Your task to perform on an android device: Go to internet settings Image 0: 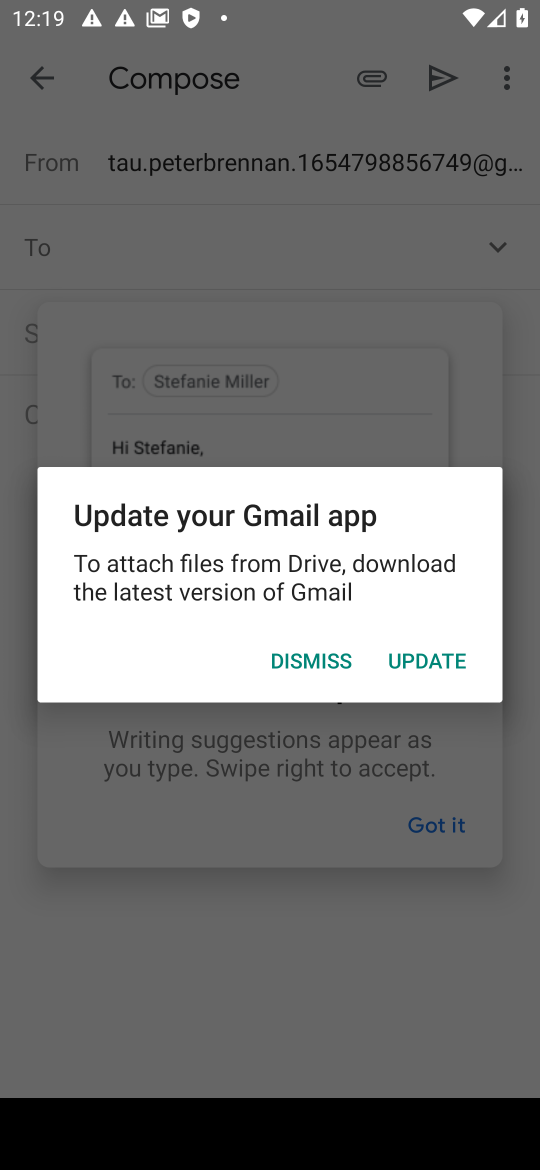
Step 0: press home button
Your task to perform on an android device: Go to internet settings Image 1: 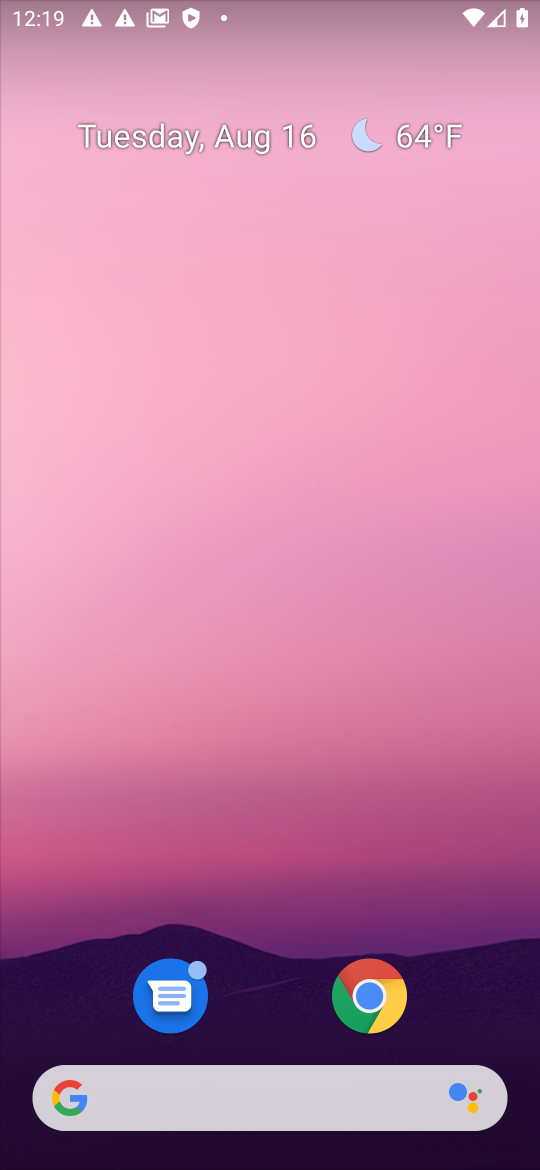
Step 1: drag from (16, 1101) to (389, 422)
Your task to perform on an android device: Go to internet settings Image 2: 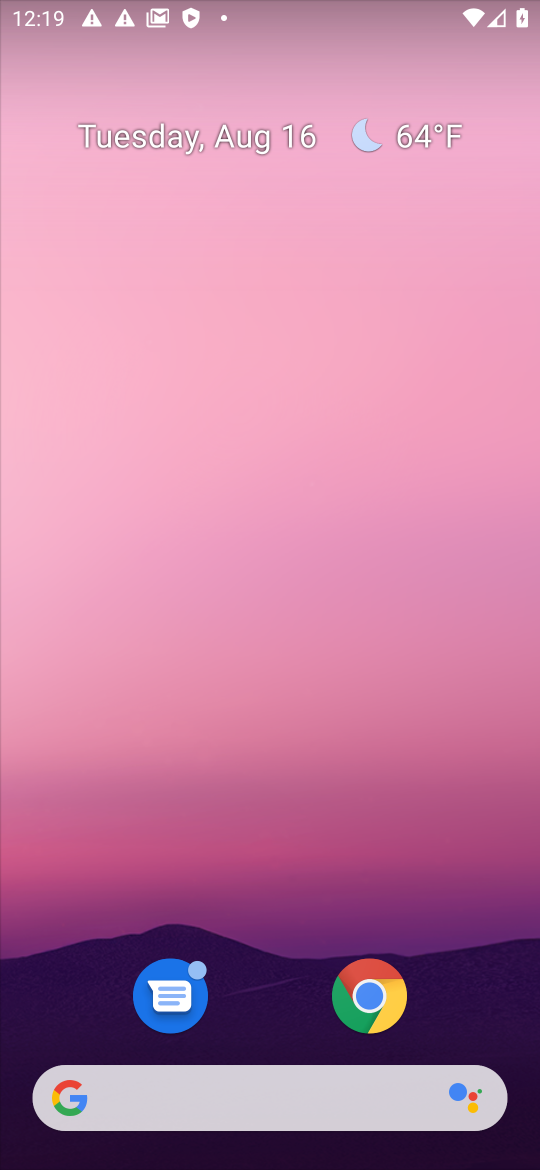
Step 2: drag from (40, 1141) to (260, 616)
Your task to perform on an android device: Go to internet settings Image 3: 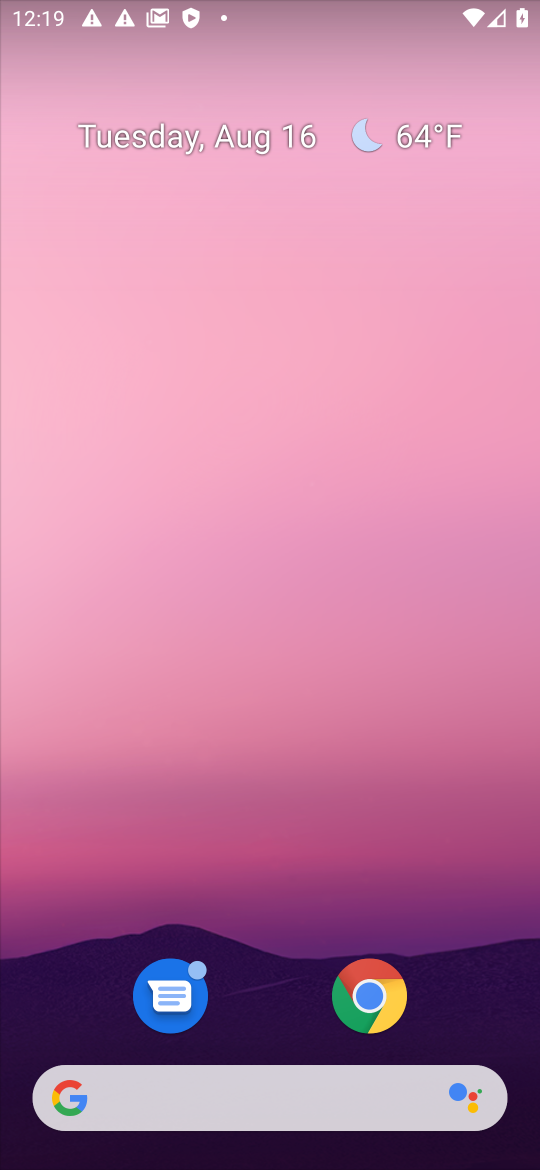
Step 3: drag from (22, 1065) to (344, 363)
Your task to perform on an android device: Go to internet settings Image 4: 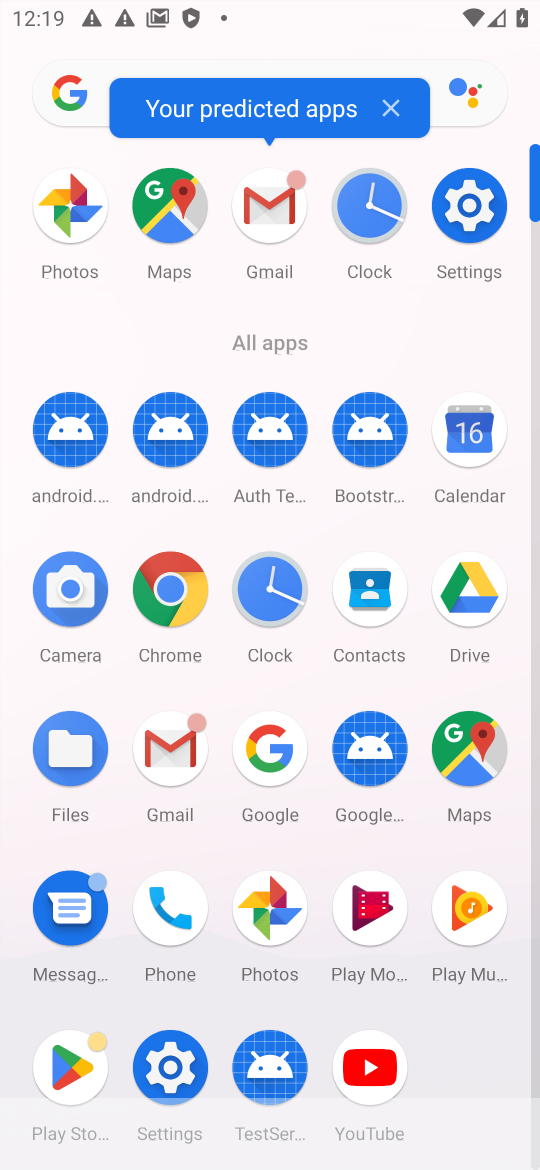
Step 4: click (179, 1061)
Your task to perform on an android device: Go to internet settings Image 5: 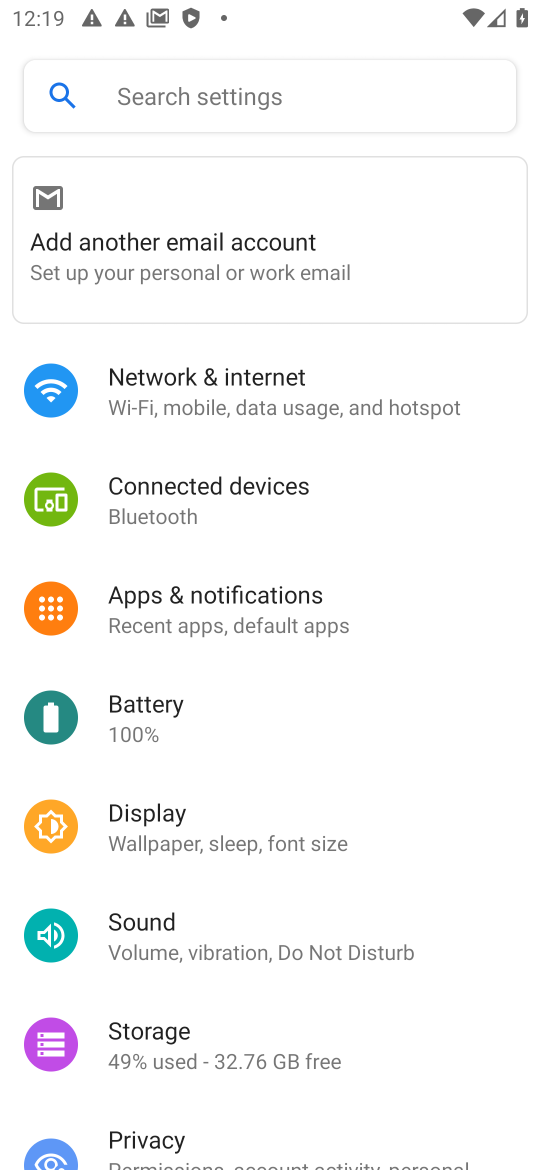
Step 5: click (221, 396)
Your task to perform on an android device: Go to internet settings Image 6: 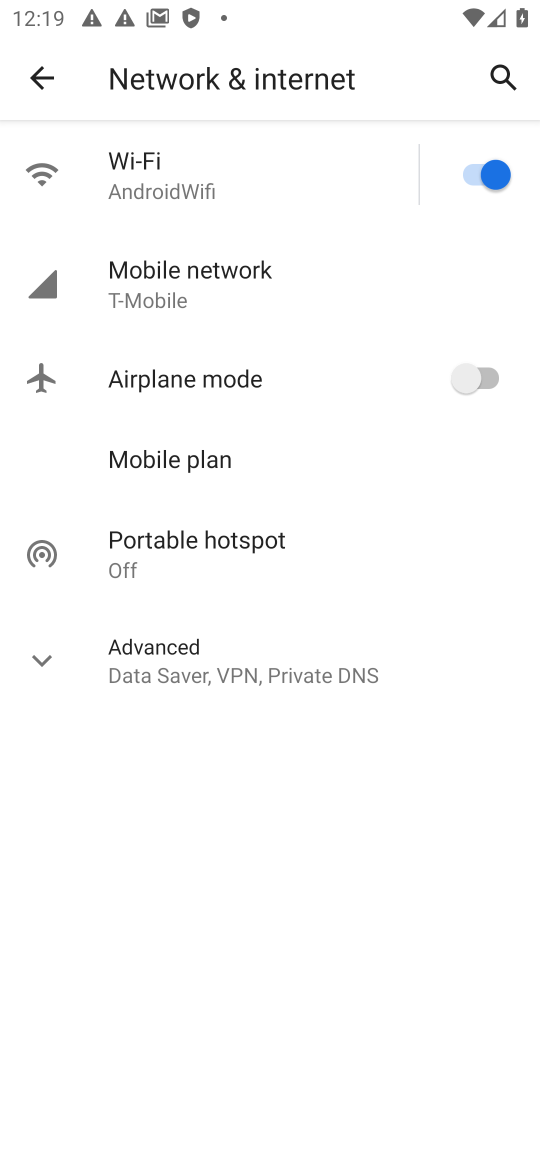
Step 6: task complete